Your task to perform on an android device: open chrome privacy settings Image 0: 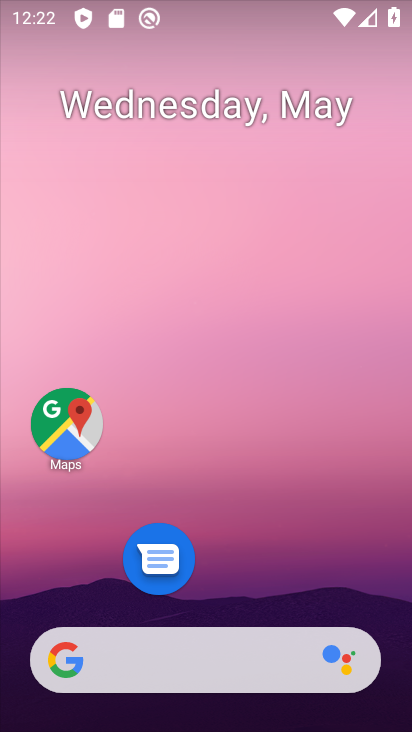
Step 0: drag from (250, 599) to (208, 39)
Your task to perform on an android device: open chrome privacy settings Image 1: 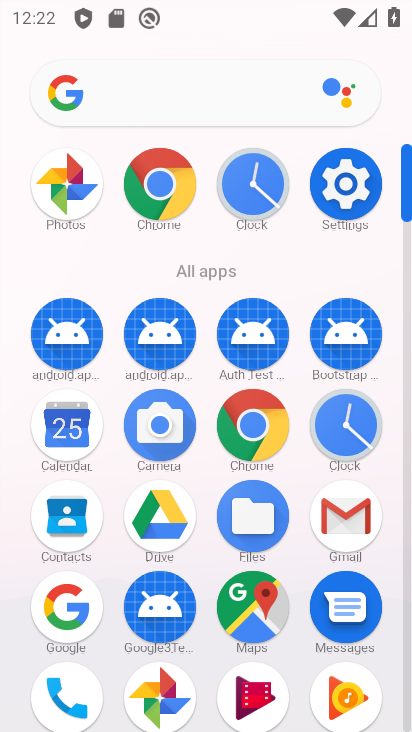
Step 1: click (344, 414)
Your task to perform on an android device: open chrome privacy settings Image 2: 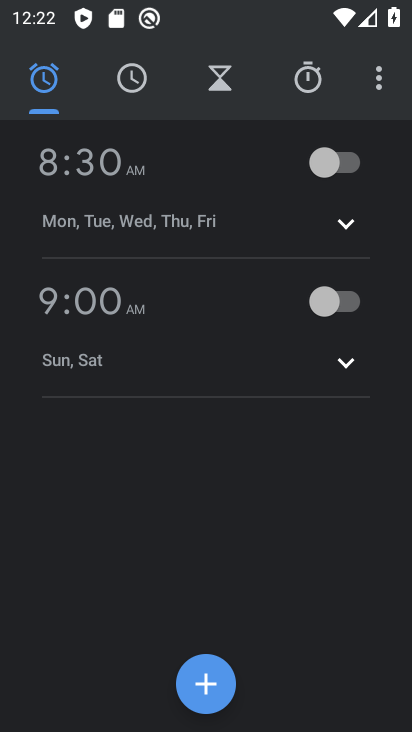
Step 2: press home button
Your task to perform on an android device: open chrome privacy settings Image 3: 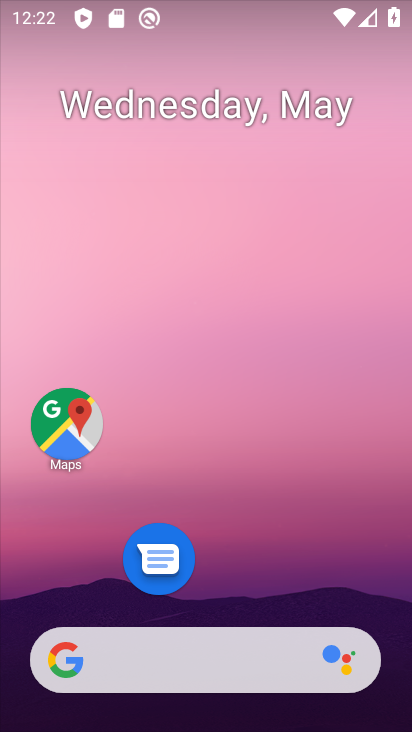
Step 3: drag from (207, 612) to (284, 58)
Your task to perform on an android device: open chrome privacy settings Image 4: 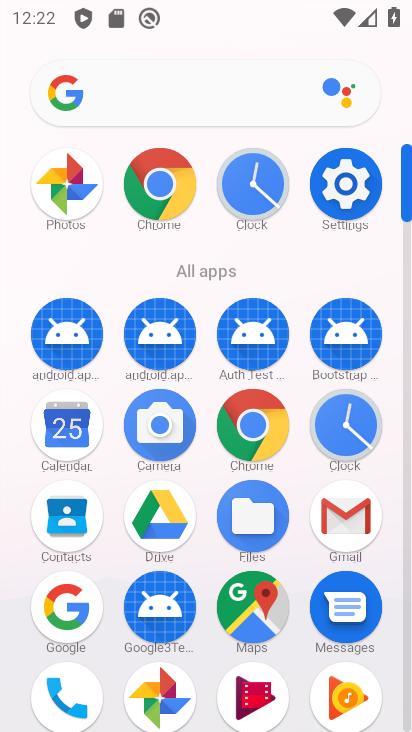
Step 4: click (137, 167)
Your task to perform on an android device: open chrome privacy settings Image 5: 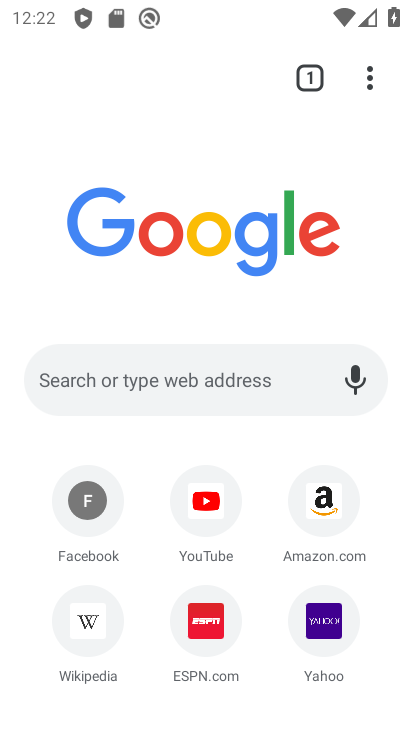
Step 5: click (375, 79)
Your task to perform on an android device: open chrome privacy settings Image 6: 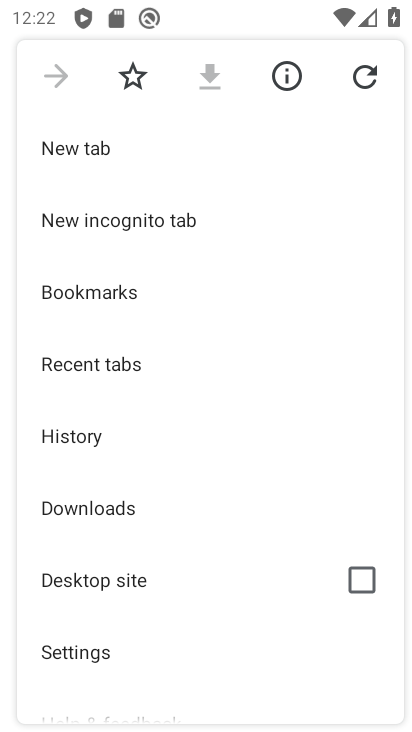
Step 6: click (89, 629)
Your task to perform on an android device: open chrome privacy settings Image 7: 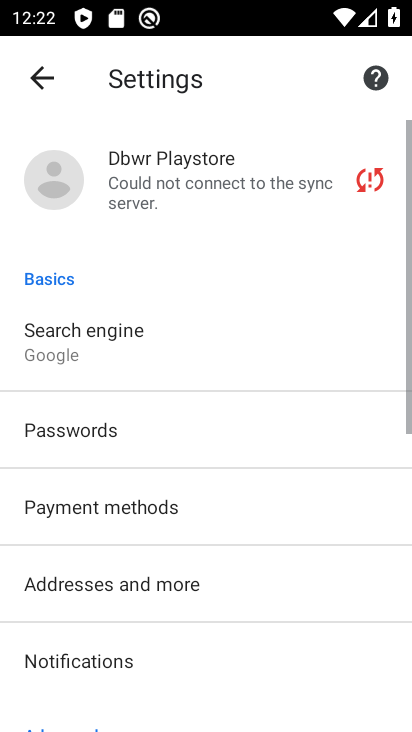
Step 7: drag from (89, 629) to (178, 140)
Your task to perform on an android device: open chrome privacy settings Image 8: 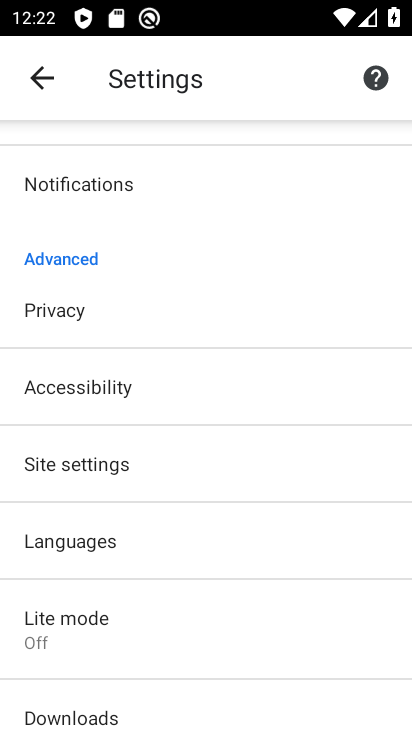
Step 8: click (60, 316)
Your task to perform on an android device: open chrome privacy settings Image 9: 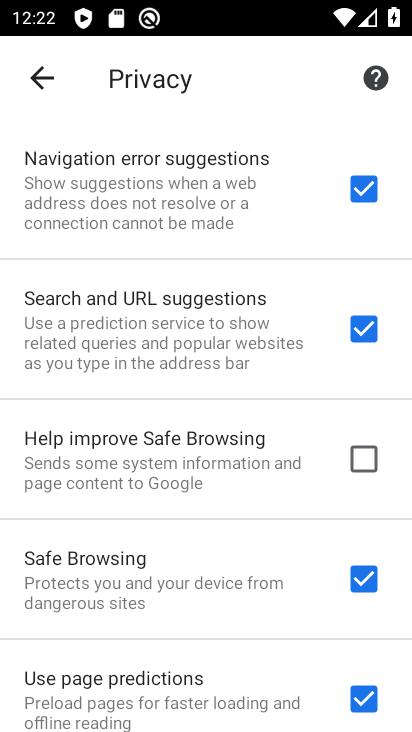
Step 9: task complete